Your task to perform on an android device: turn on sleep mode Image 0: 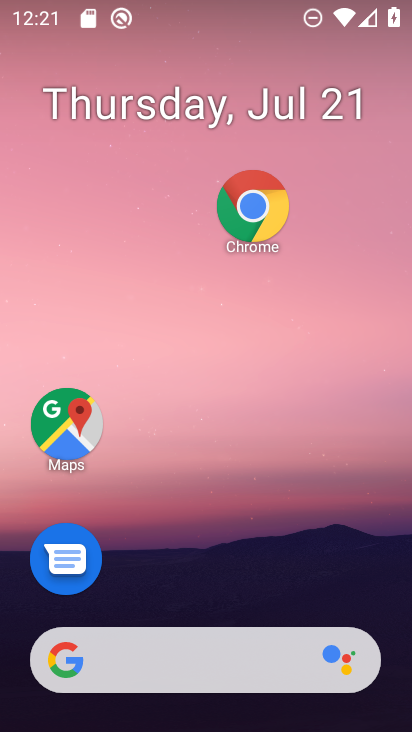
Step 0: drag from (183, 638) to (246, 161)
Your task to perform on an android device: turn on sleep mode Image 1: 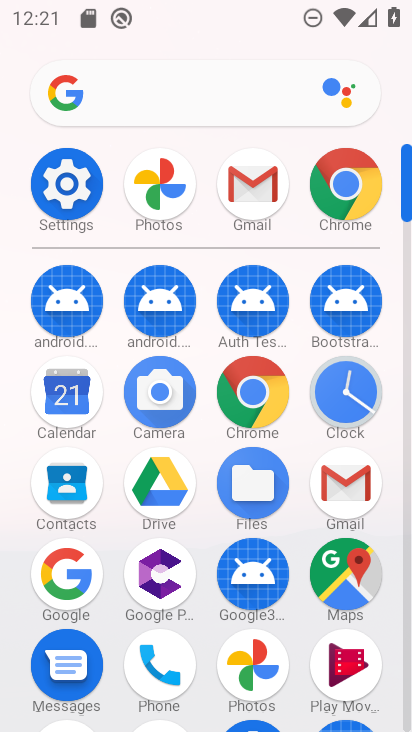
Step 1: click (55, 218)
Your task to perform on an android device: turn on sleep mode Image 2: 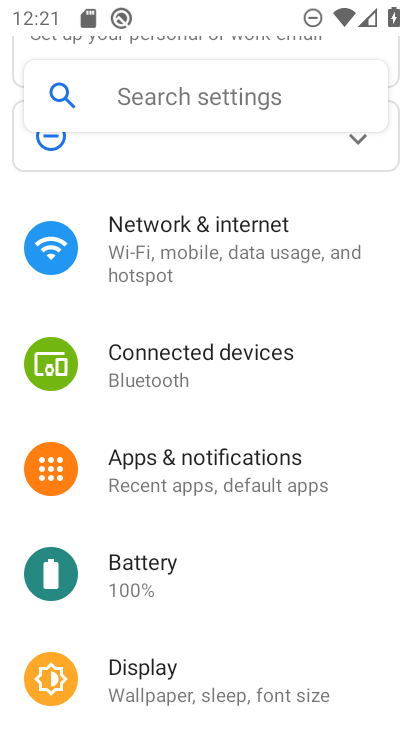
Step 2: click (160, 691)
Your task to perform on an android device: turn on sleep mode Image 3: 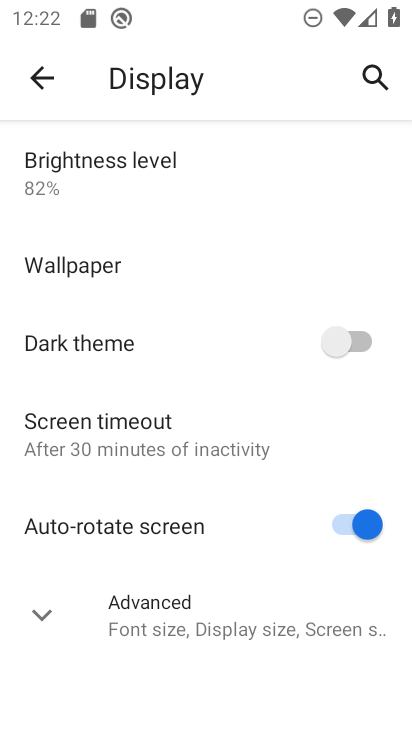
Step 3: click (151, 610)
Your task to perform on an android device: turn on sleep mode Image 4: 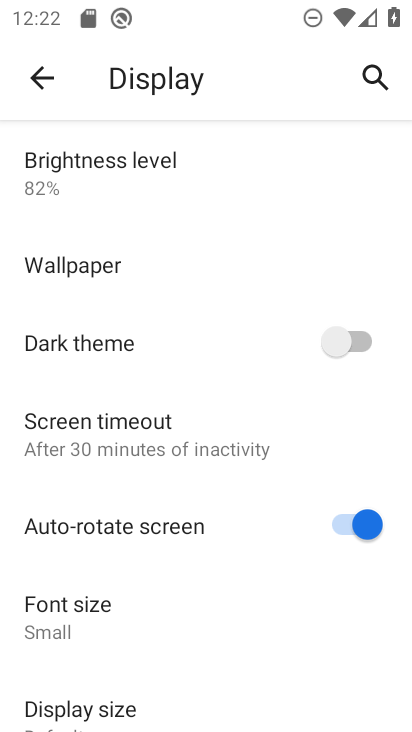
Step 4: task complete